Your task to perform on an android device: Open the calendar app, open the side menu, and click the "Day" option Image 0: 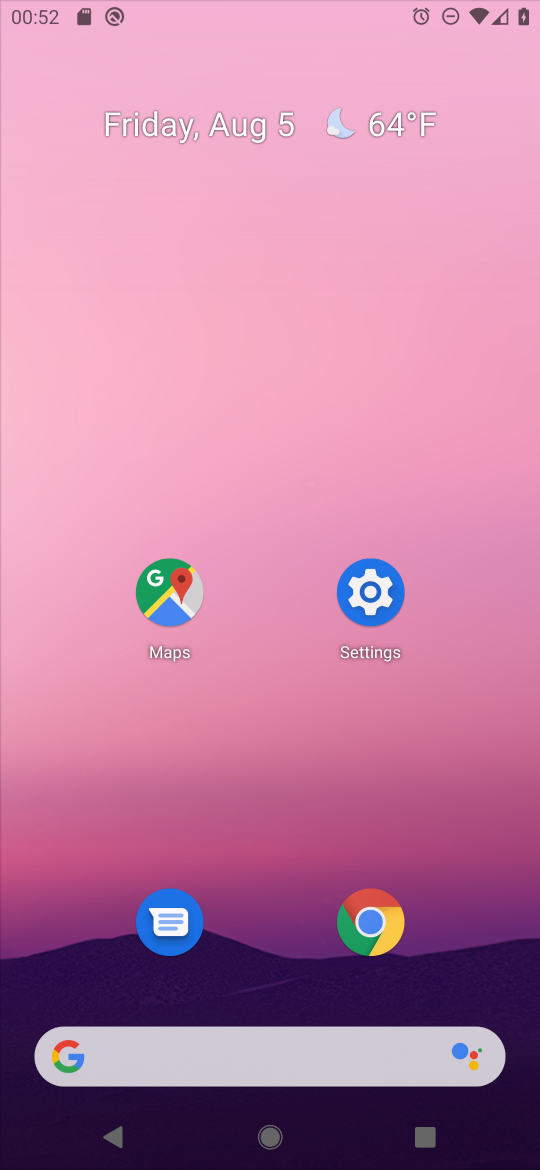
Step 0: press home button
Your task to perform on an android device: Open the calendar app, open the side menu, and click the "Day" option Image 1: 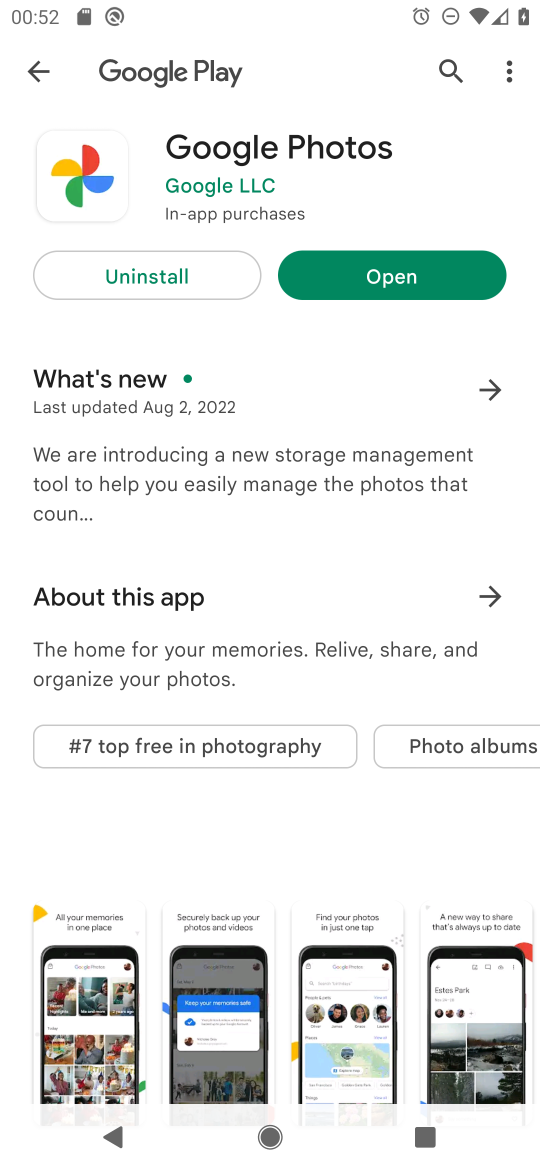
Step 1: click (363, 910)
Your task to perform on an android device: Open the calendar app, open the side menu, and click the "Day" option Image 2: 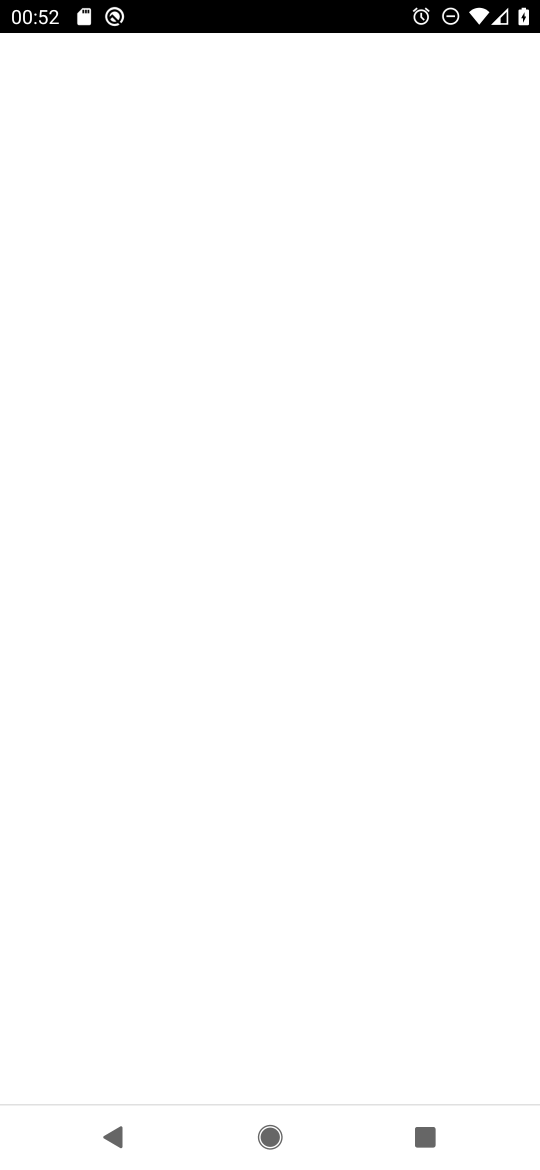
Step 2: drag from (281, 1035) to (418, 497)
Your task to perform on an android device: Open the calendar app, open the side menu, and click the "Day" option Image 3: 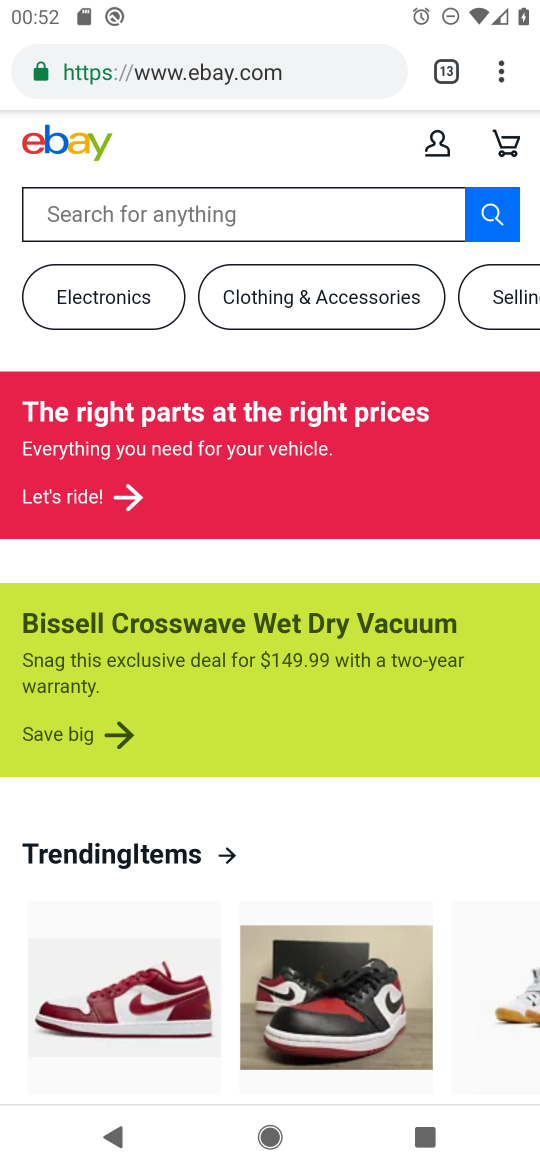
Step 3: press home button
Your task to perform on an android device: Open the calendar app, open the side menu, and click the "Day" option Image 4: 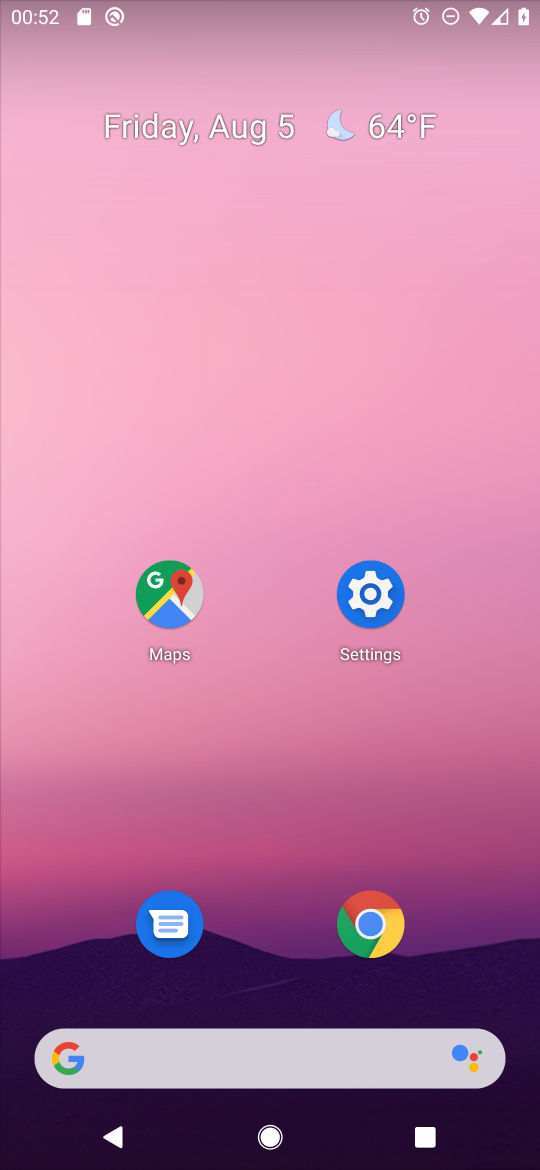
Step 4: drag from (307, 1056) to (436, 58)
Your task to perform on an android device: Open the calendar app, open the side menu, and click the "Day" option Image 5: 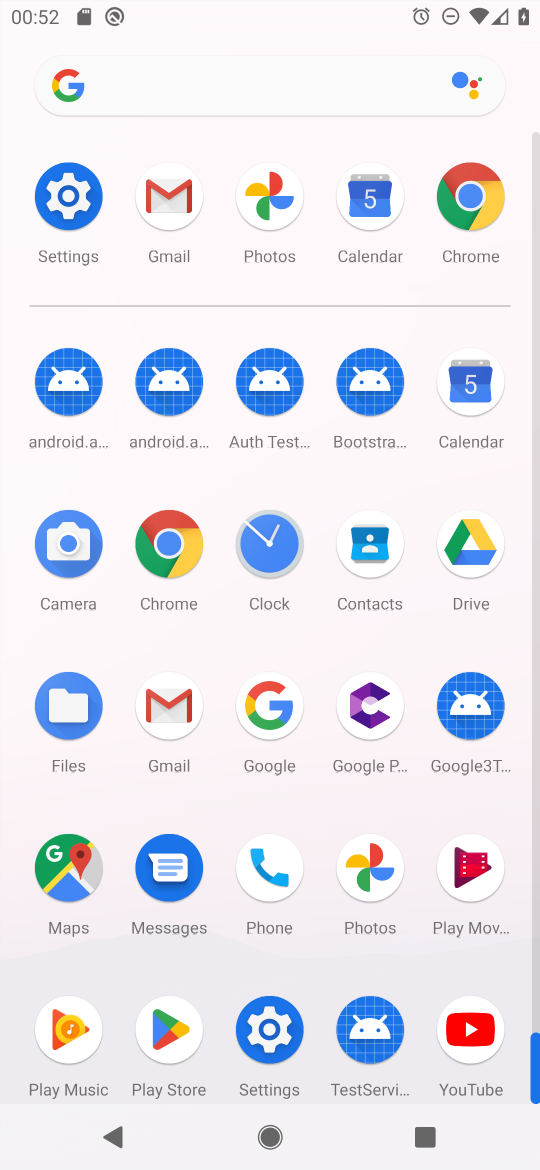
Step 5: click (476, 387)
Your task to perform on an android device: Open the calendar app, open the side menu, and click the "Day" option Image 6: 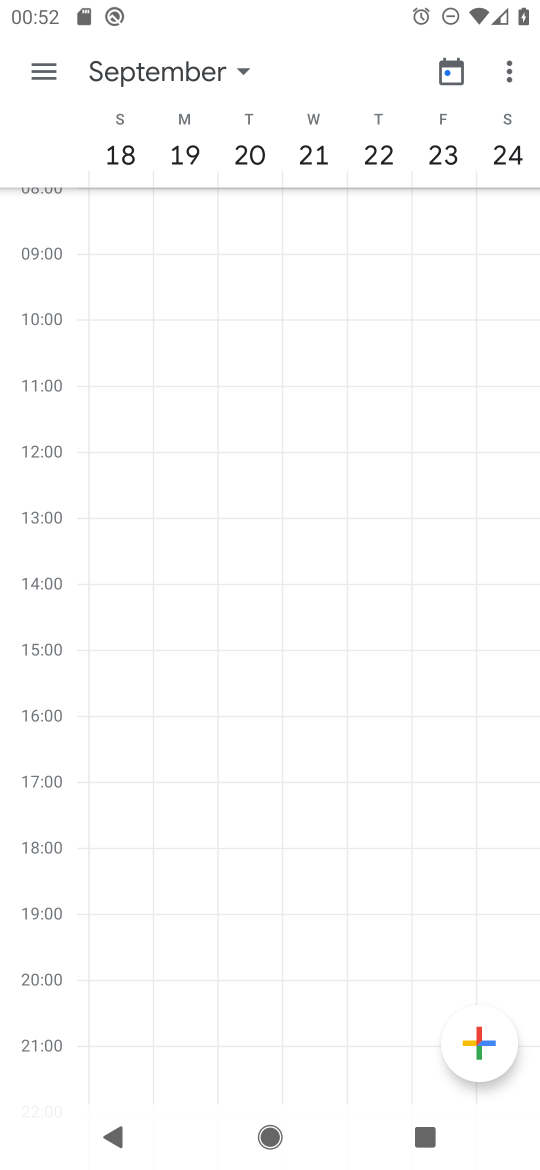
Step 6: click (45, 67)
Your task to perform on an android device: Open the calendar app, open the side menu, and click the "Day" option Image 7: 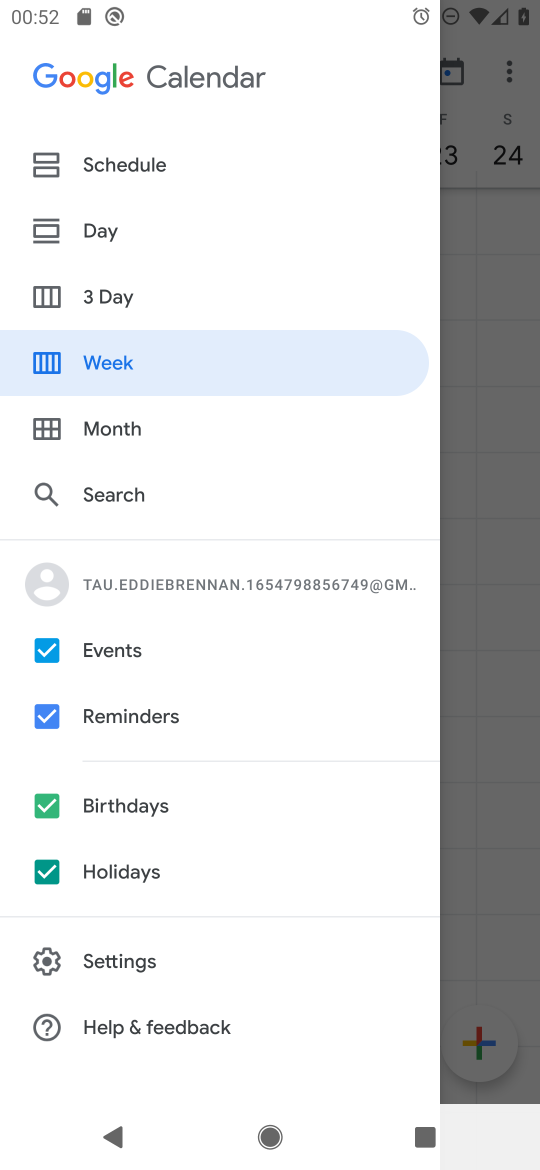
Step 7: click (105, 224)
Your task to perform on an android device: Open the calendar app, open the side menu, and click the "Day" option Image 8: 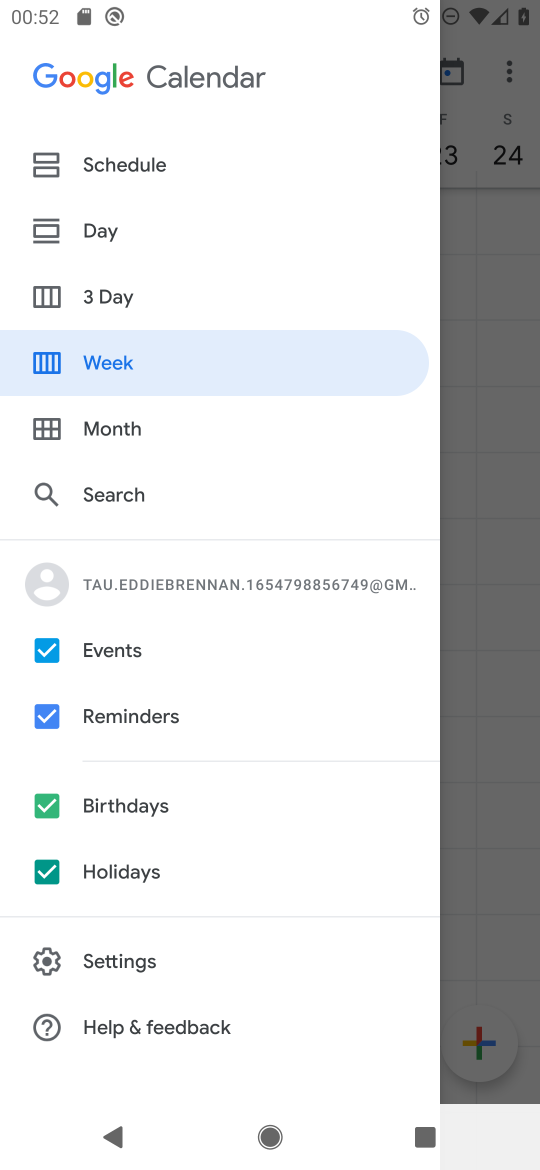
Step 8: click (115, 230)
Your task to perform on an android device: Open the calendar app, open the side menu, and click the "Day" option Image 9: 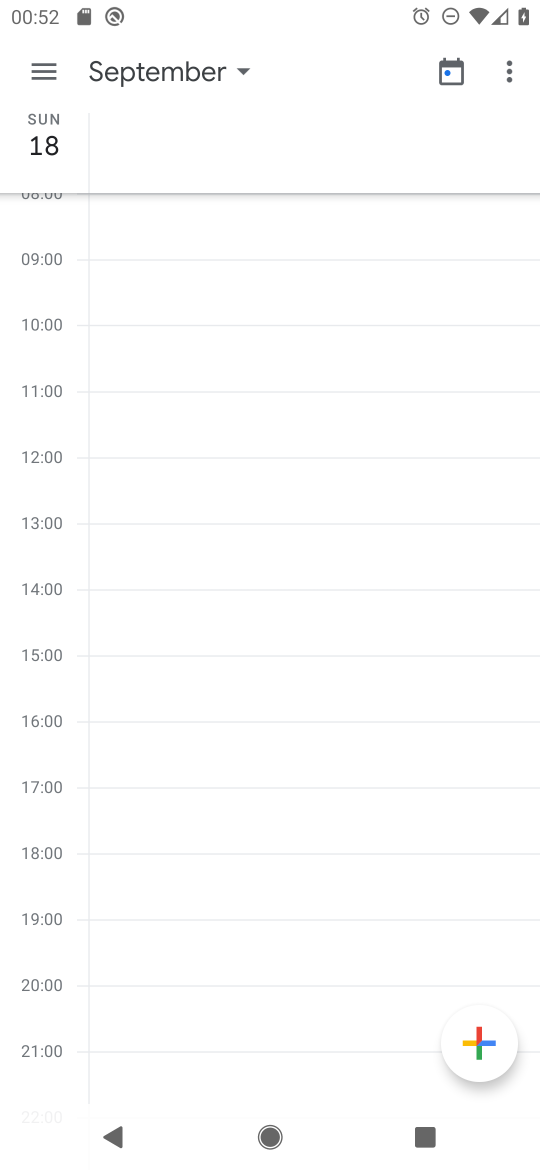
Step 9: task complete